Your task to perform on an android device: stop showing notifications on the lock screen Image 0: 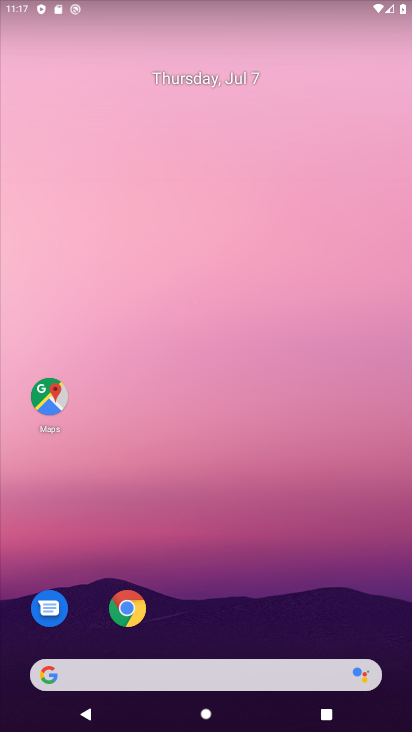
Step 0: drag from (30, 633) to (274, 108)
Your task to perform on an android device: stop showing notifications on the lock screen Image 1: 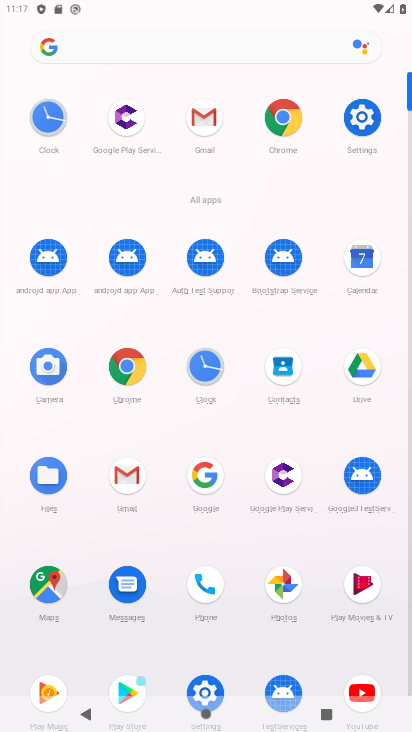
Step 1: click (349, 122)
Your task to perform on an android device: stop showing notifications on the lock screen Image 2: 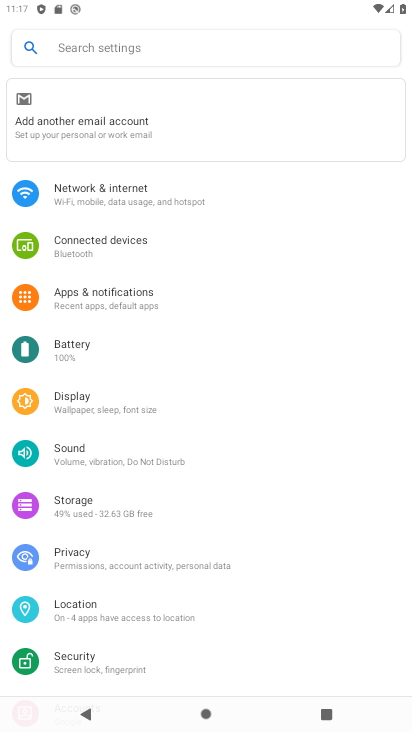
Step 2: click (170, 292)
Your task to perform on an android device: stop showing notifications on the lock screen Image 3: 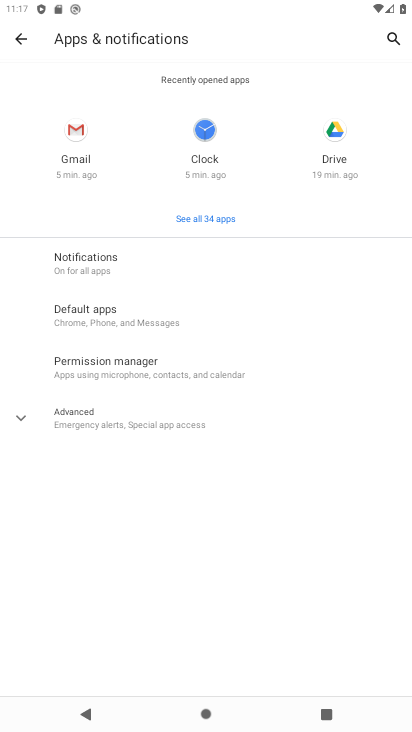
Step 3: click (238, 275)
Your task to perform on an android device: stop showing notifications on the lock screen Image 4: 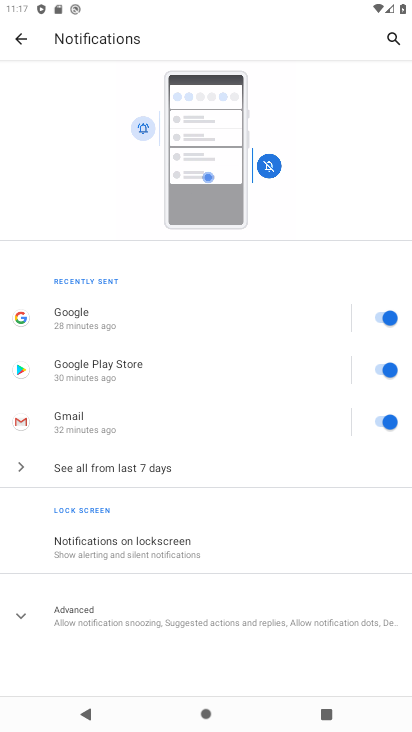
Step 4: click (151, 537)
Your task to perform on an android device: stop showing notifications on the lock screen Image 5: 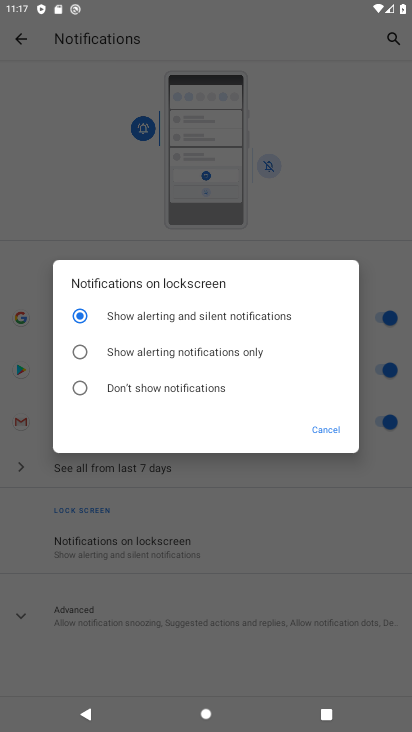
Step 5: click (87, 394)
Your task to perform on an android device: stop showing notifications on the lock screen Image 6: 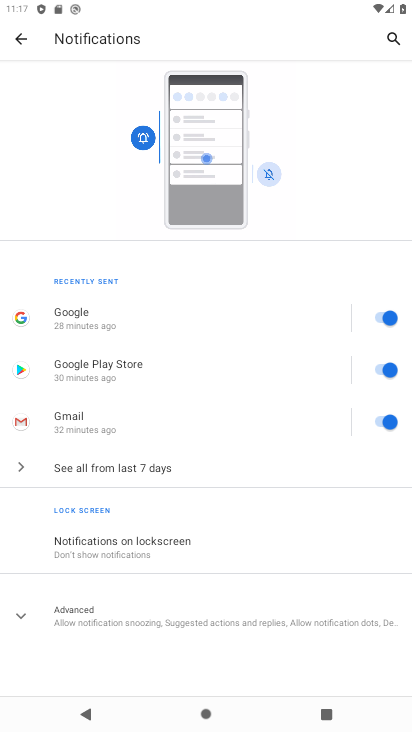
Step 6: task complete